Your task to perform on an android device: turn off smart reply in the gmail app Image 0: 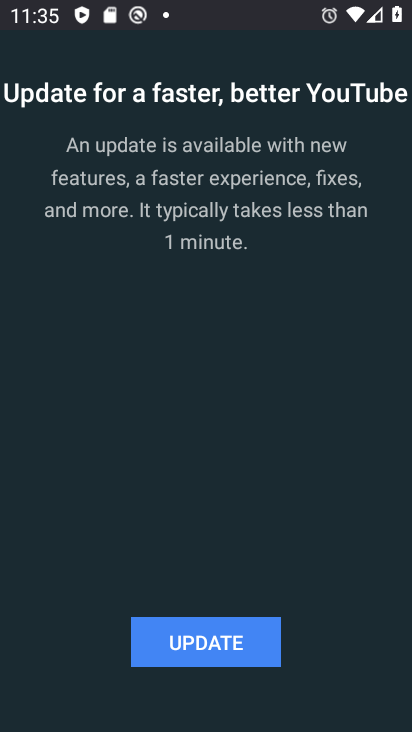
Step 0: drag from (210, 590) to (141, 46)
Your task to perform on an android device: turn off smart reply in the gmail app Image 1: 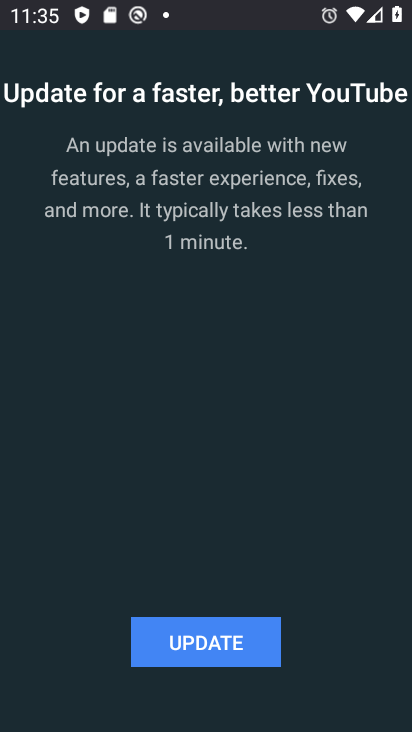
Step 1: press home button
Your task to perform on an android device: turn off smart reply in the gmail app Image 2: 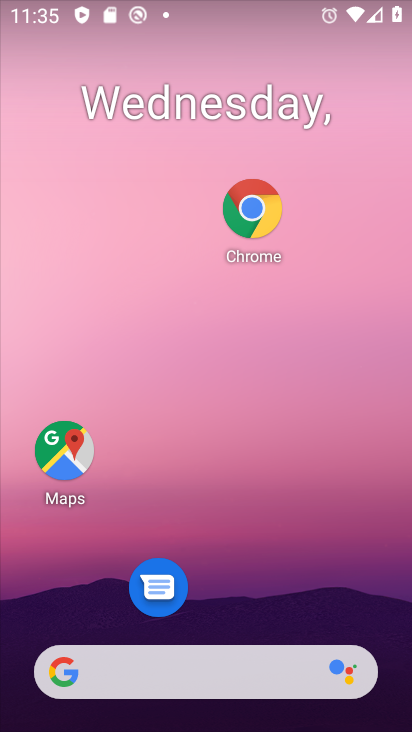
Step 2: drag from (211, 615) to (206, 36)
Your task to perform on an android device: turn off smart reply in the gmail app Image 3: 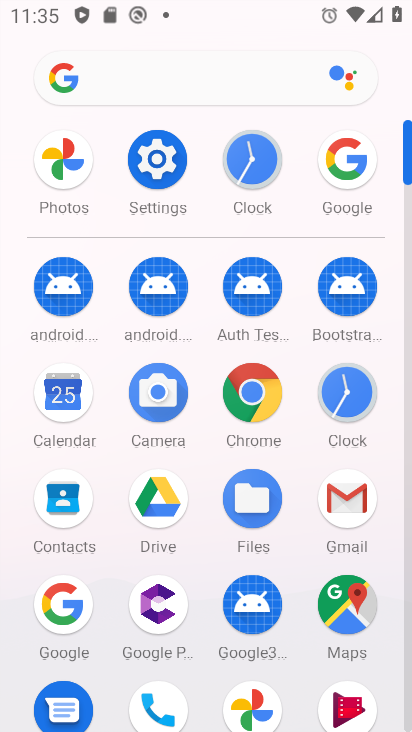
Step 3: click (350, 510)
Your task to perform on an android device: turn off smart reply in the gmail app Image 4: 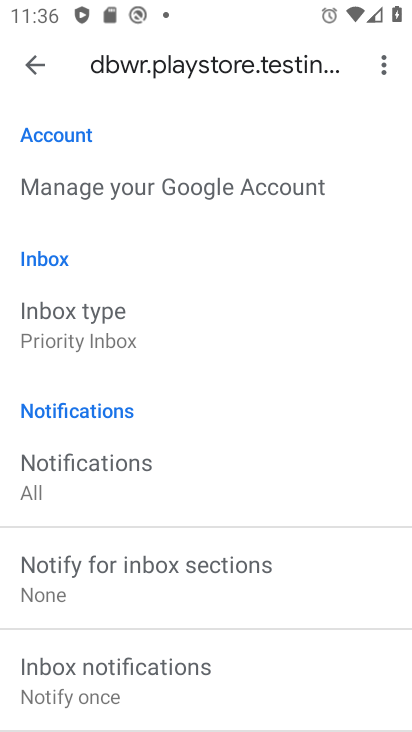
Step 4: drag from (217, 593) to (147, 79)
Your task to perform on an android device: turn off smart reply in the gmail app Image 5: 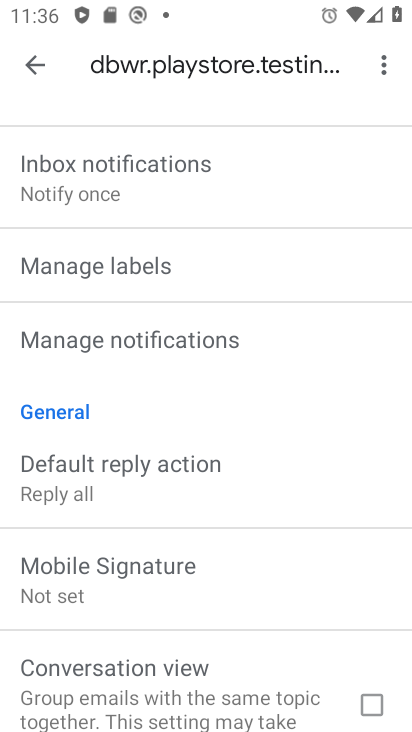
Step 5: drag from (195, 620) to (195, 302)
Your task to perform on an android device: turn off smart reply in the gmail app Image 6: 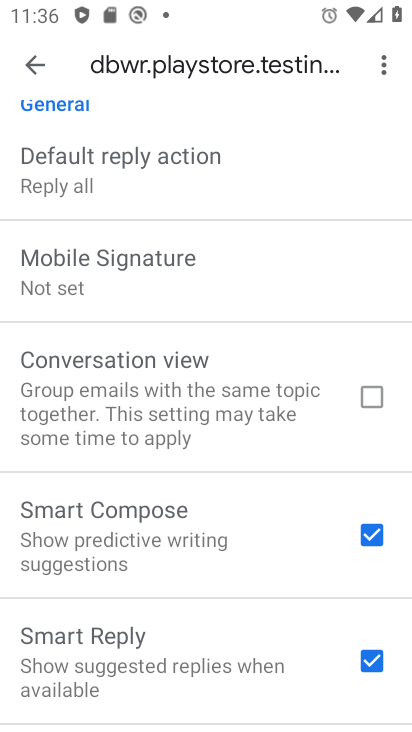
Step 6: click (373, 666)
Your task to perform on an android device: turn off smart reply in the gmail app Image 7: 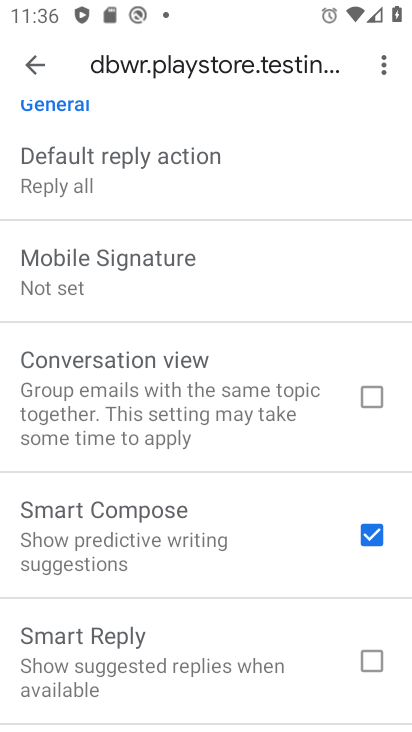
Step 7: task complete